Your task to perform on an android device: open app "Mercado Libre" (install if not already installed), go to login, and select forgot password Image 0: 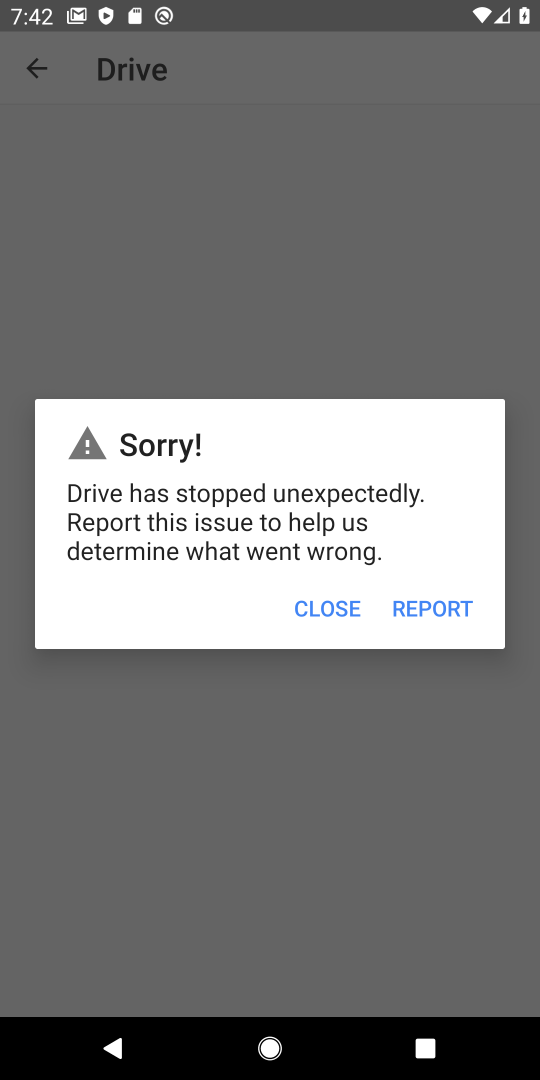
Step 0: press home button
Your task to perform on an android device: open app "Mercado Libre" (install if not already installed), go to login, and select forgot password Image 1: 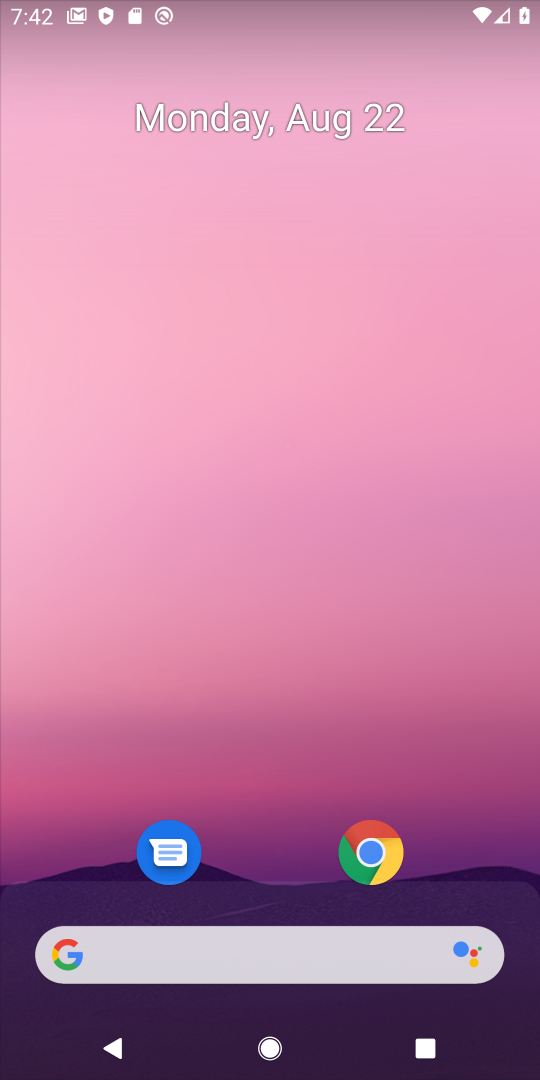
Step 1: drag from (317, 899) to (315, 265)
Your task to perform on an android device: open app "Mercado Libre" (install if not already installed), go to login, and select forgot password Image 2: 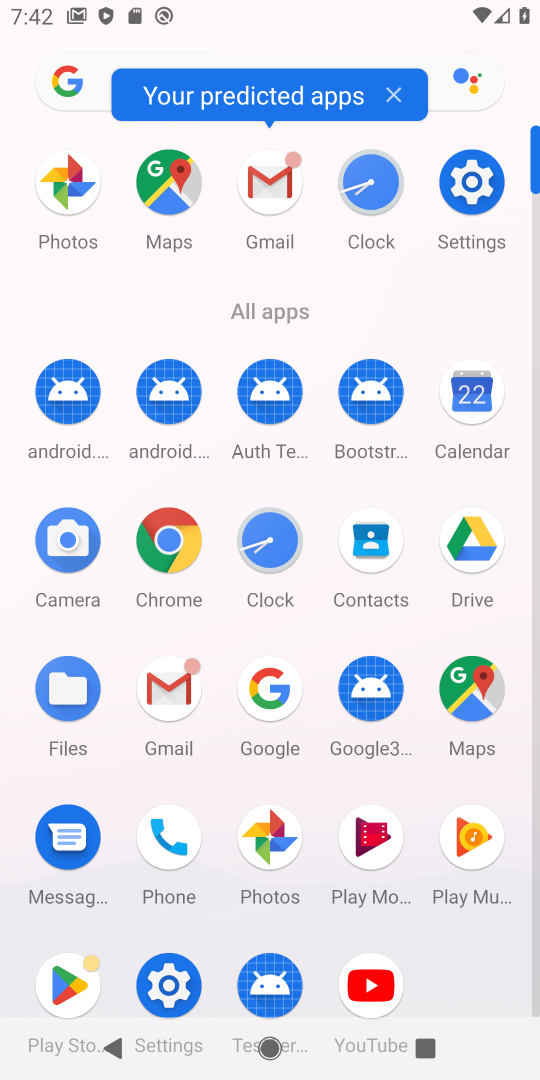
Step 2: click (75, 970)
Your task to perform on an android device: open app "Mercado Libre" (install if not already installed), go to login, and select forgot password Image 3: 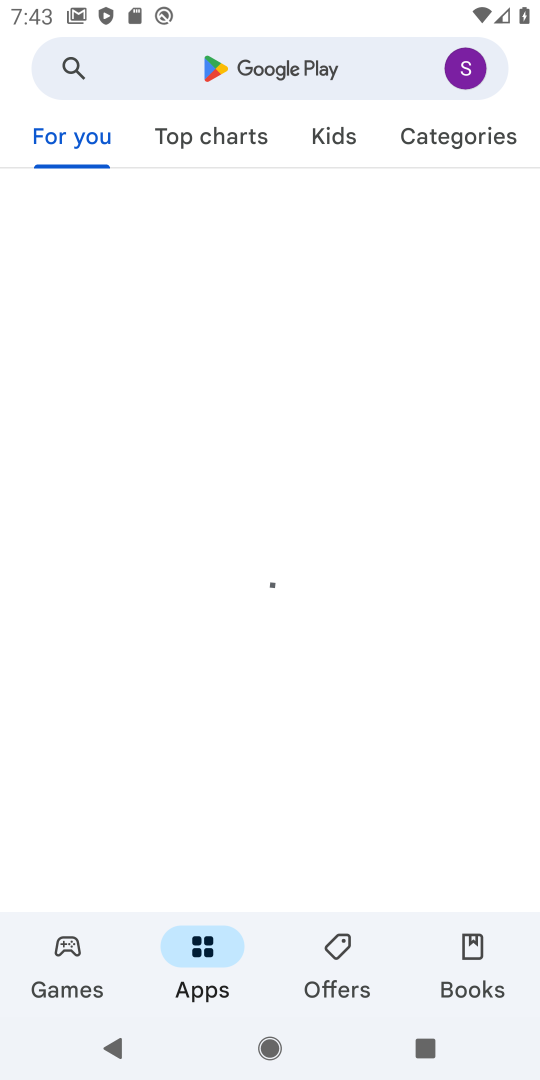
Step 3: click (285, 79)
Your task to perform on an android device: open app "Mercado Libre" (install if not already installed), go to login, and select forgot password Image 4: 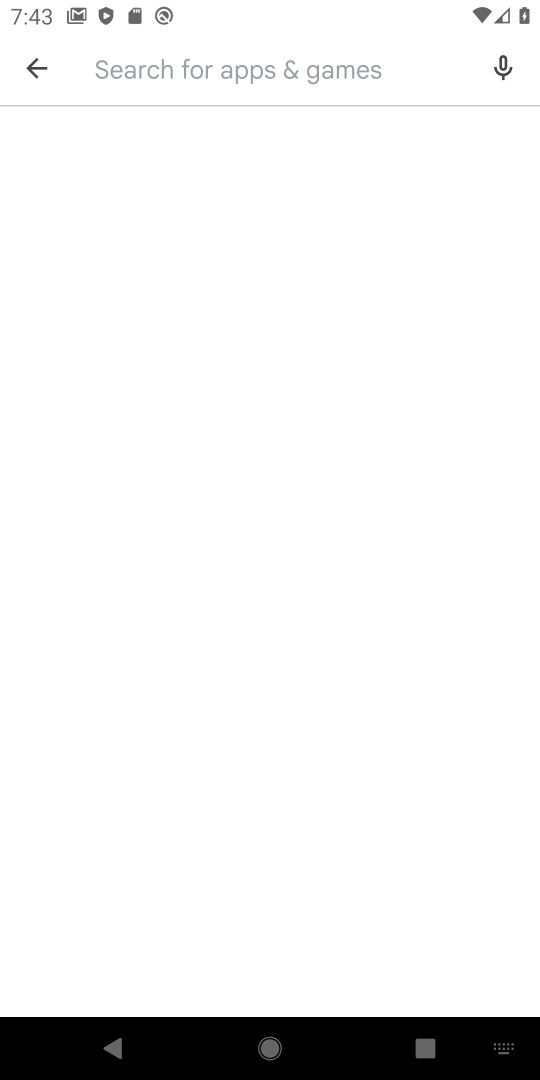
Step 4: type "mercado libre"
Your task to perform on an android device: open app "Mercado Libre" (install if not already installed), go to login, and select forgot password Image 5: 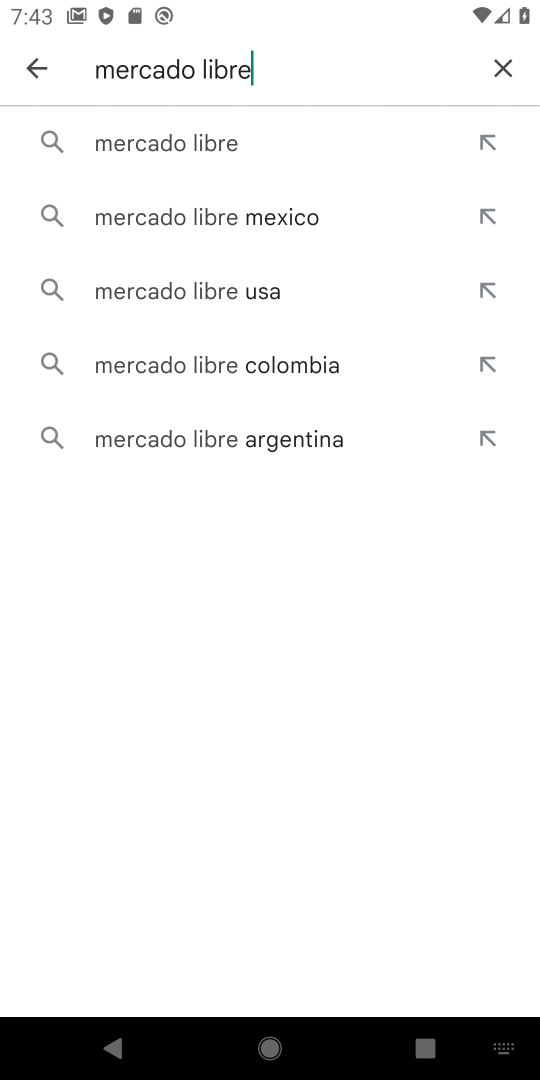
Step 5: click (222, 156)
Your task to perform on an android device: open app "Mercado Libre" (install if not already installed), go to login, and select forgot password Image 6: 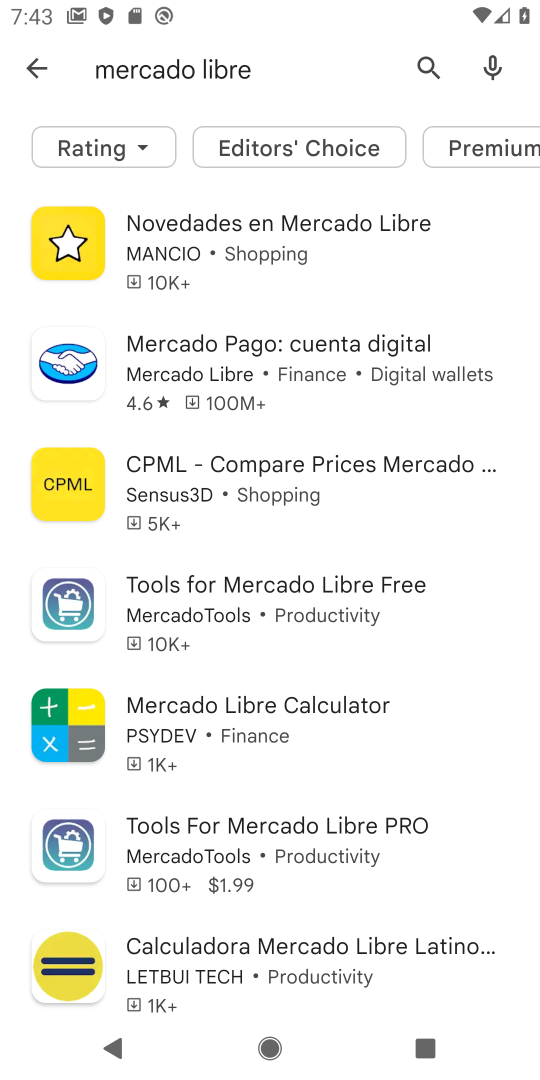
Step 6: task complete